Your task to perform on an android device: find snoozed emails in the gmail app Image 0: 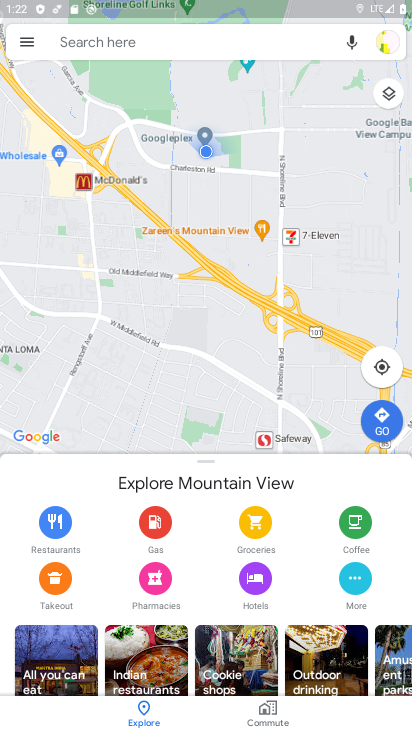
Step 0: press home button
Your task to perform on an android device: find snoozed emails in the gmail app Image 1: 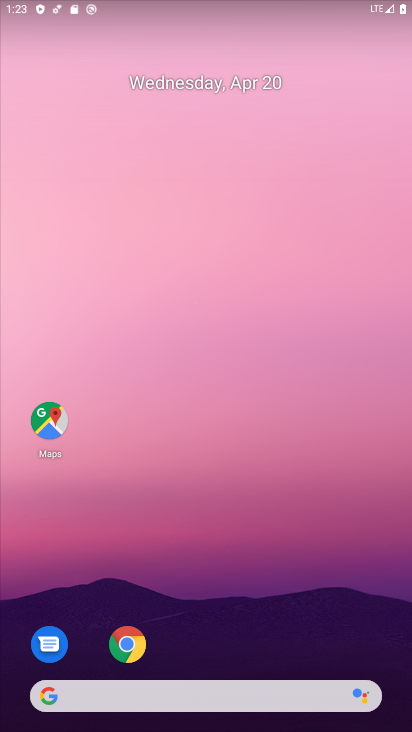
Step 1: click (263, 6)
Your task to perform on an android device: find snoozed emails in the gmail app Image 2: 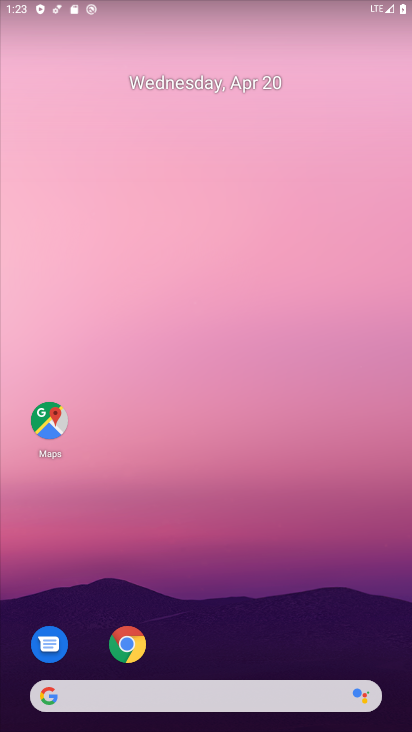
Step 2: drag from (279, 665) to (322, 121)
Your task to perform on an android device: find snoozed emails in the gmail app Image 3: 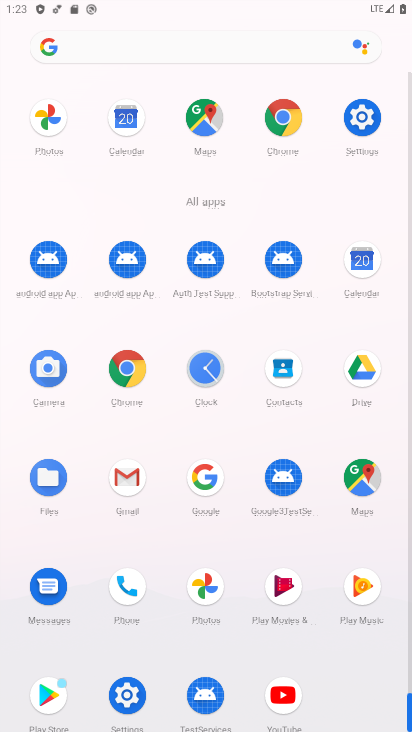
Step 3: click (128, 478)
Your task to perform on an android device: find snoozed emails in the gmail app Image 4: 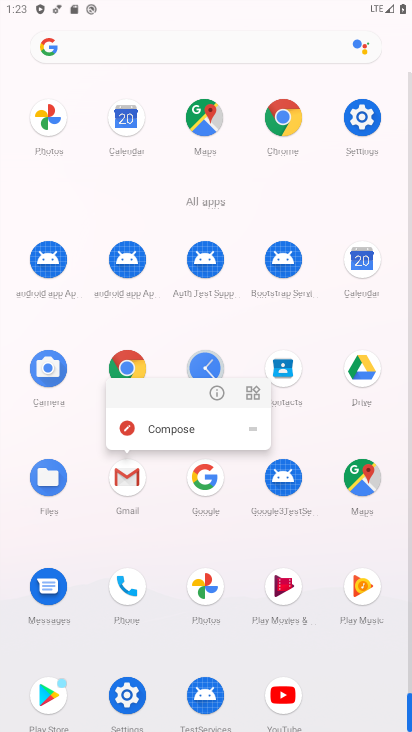
Step 4: click (136, 491)
Your task to perform on an android device: find snoozed emails in the gmail app Image 5: 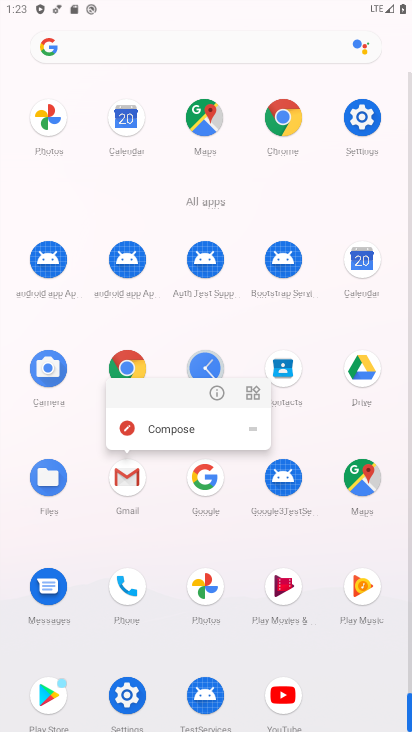
Step 5: click (136, 491)
Your task to perform on an android device: find snoozed emails in the gmail app Image 6: 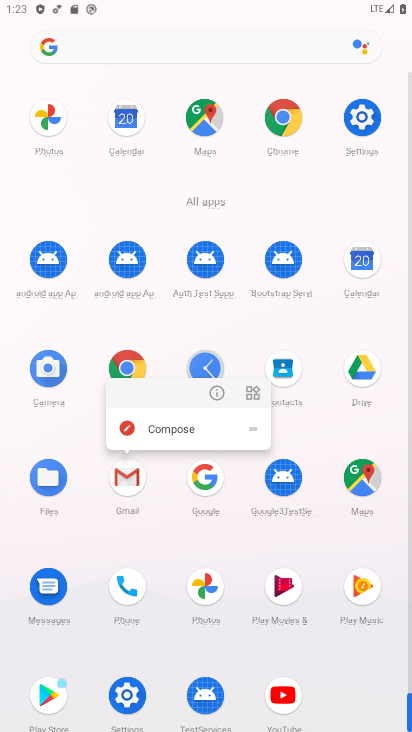
Step 6: click (120, 472)
Your task to perform on an android device: find snoozed emails in the gmail app Image 7: 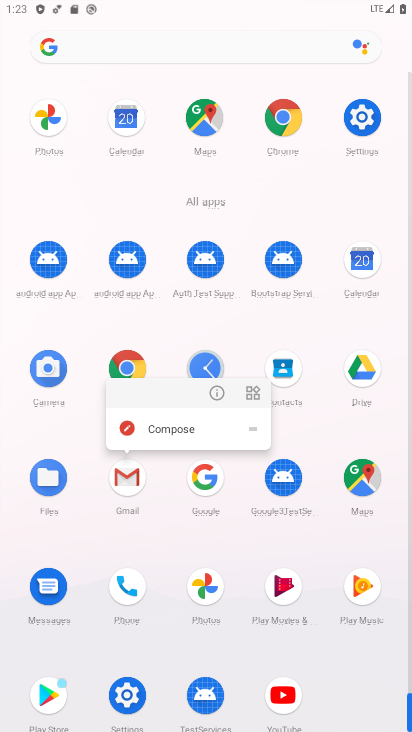
Step 7: click (137, 474)
Your task to perform on an android device: find snoozed emails in the gmail app Image 8: 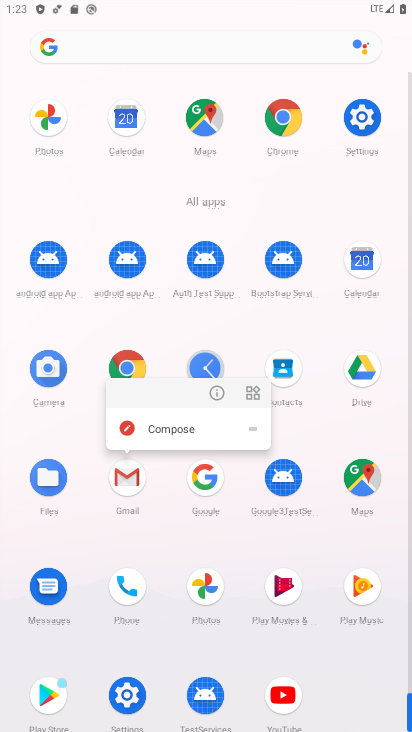
Step 8: click (137, 474)
Your task to perform on an android device: find snoozed emails in the gmail app Image 9: 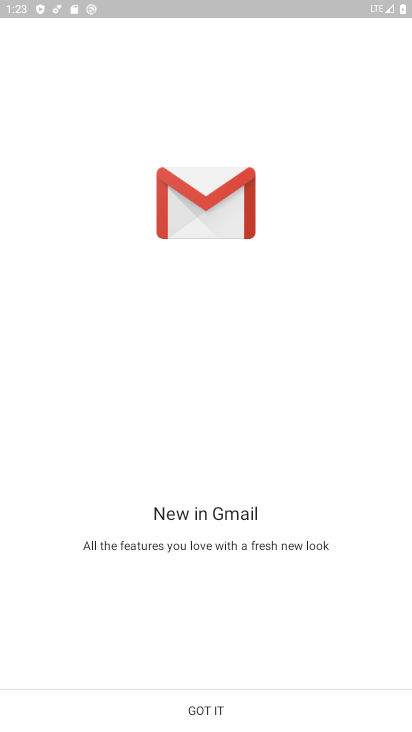
Step 9: click (205, 716)
Your task to perform on an android device: find snoozed emails in the gmail app Image 10: 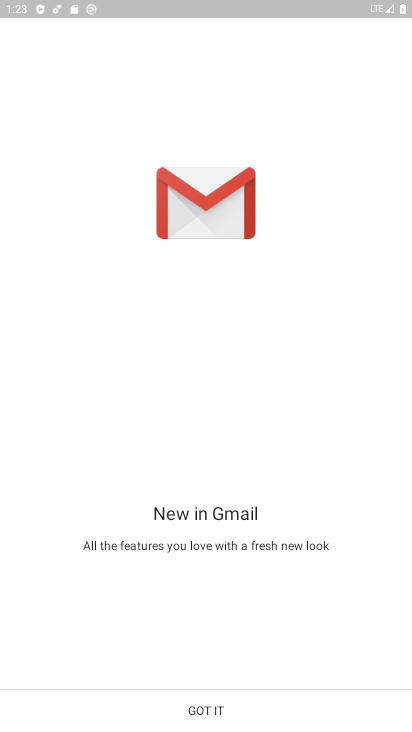
Step 10: click (205, 716)
Your task to perform on an android device: find snoozed emails in the gmail app Image 11: 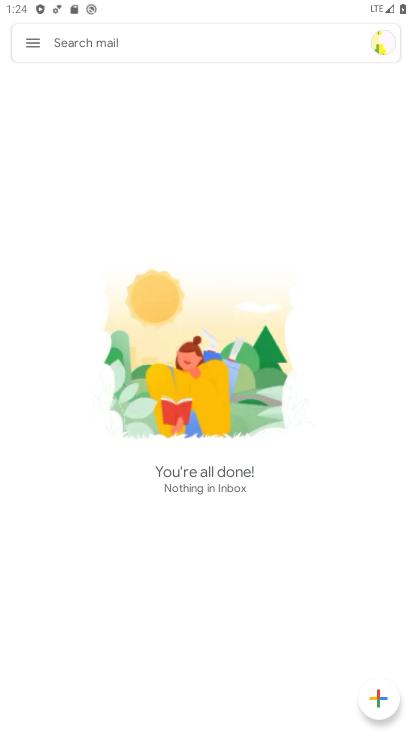
Step 11: click (37, 47)
Your task to perform on an android device: find snoozed emails in the gmail app Image 12: 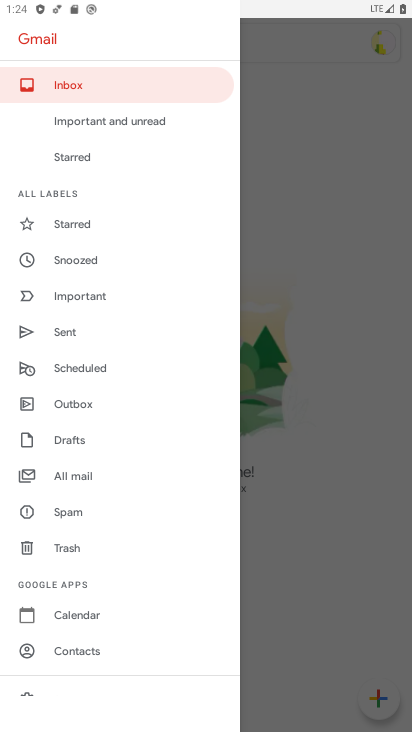
Step 12: click (98, 262)
Your task to perform on an android device: find snoozed emails in the gmail app Image 13: 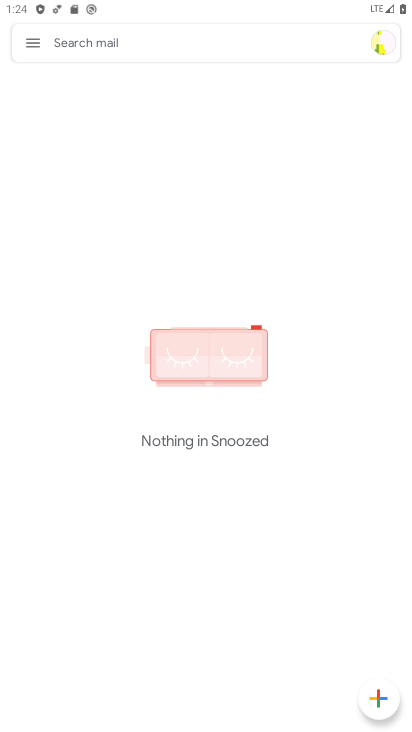
Step 13: task complete